Your task to perform on an android device: What's on my calendar tomorrow? Image 0: 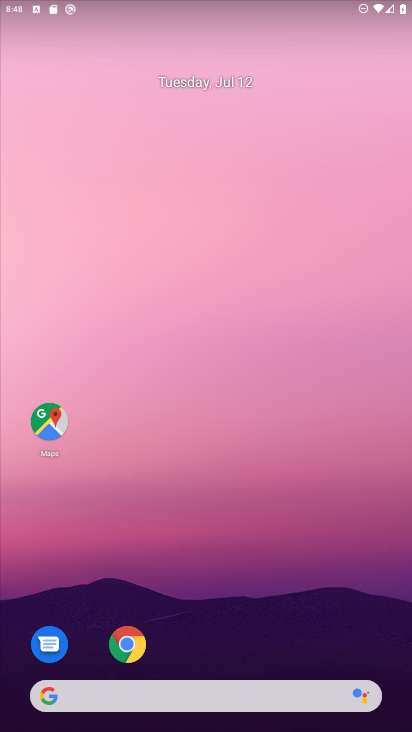
Step 0: drag from (328, 612) to (295, 251)
Your task to perform on an android device: What's on my calendar tomorrow? Image 1: 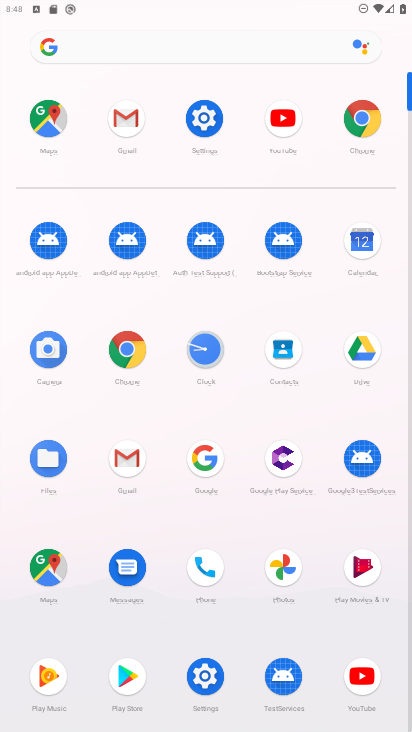
Step 1: click (364, 239)
Your task to perform on an android device: What's on my calendar tomorrow? Image 2: 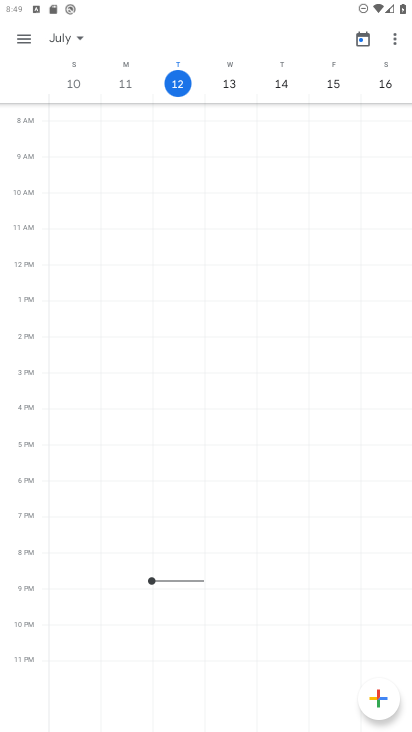
Step 2: click (77, 33)
Your task to perform on an android device: What's on my calendar tomorrow? Image 3: 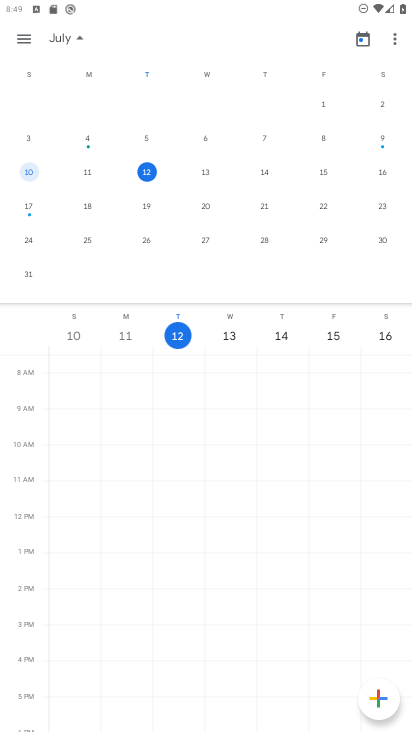
Step 3: click (28, 35)
Your task to perform on an android device: What's on my calendar tomorrow? Image 4: 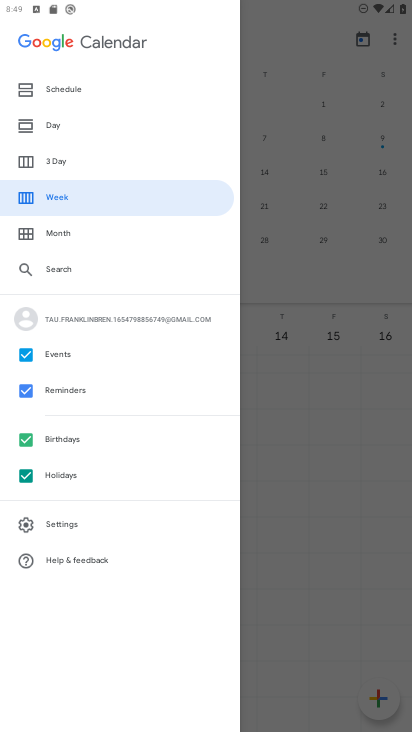
Step 4: click (56, 126)
Your task to perform on an android device: What's on my calendar tomorrow? Image 5: 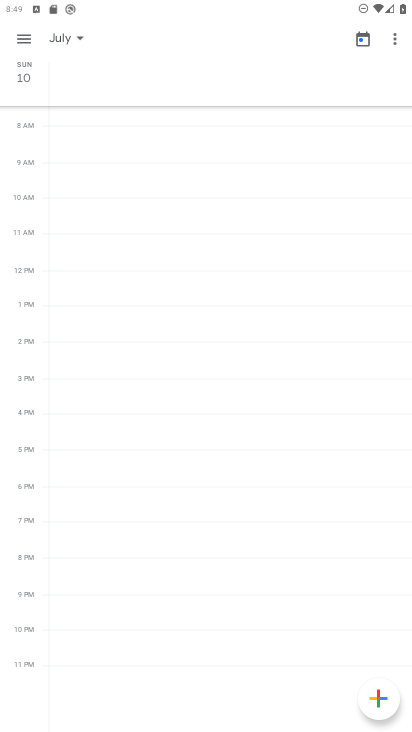
Step 5: click (74, 37)
Your task to perform on an android device: What's on my calendar tomorrow? Image 6: 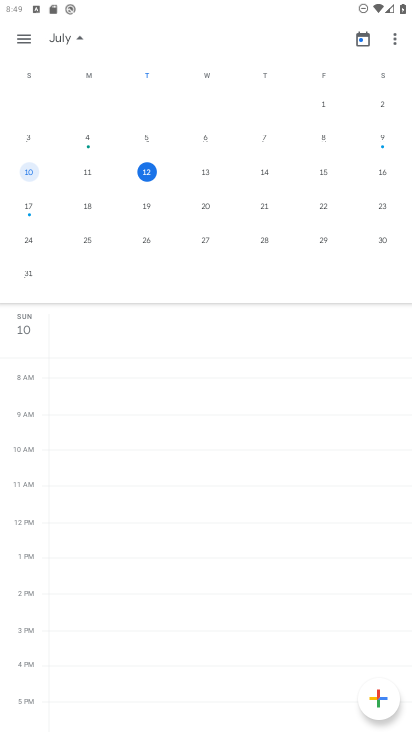
Step 6: click (206, 172)
Your task to perform on an android device: What's on my calendar tomorrow? Image 7: 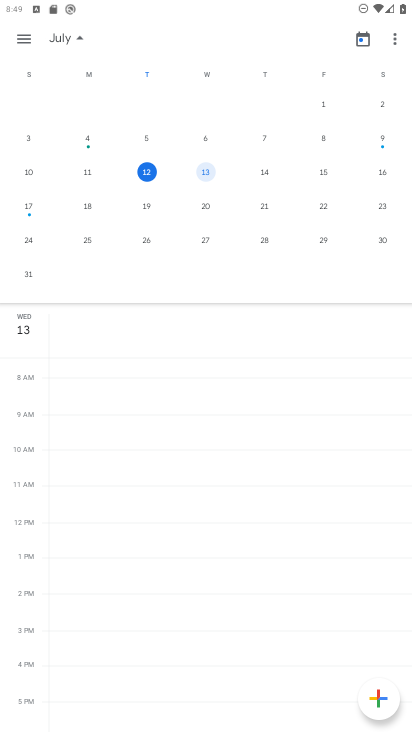
Step 7: drag from (206, 640) to (199, 591)
Your task to perform on an android device: What's on my calendar tomorrow? Image 8: 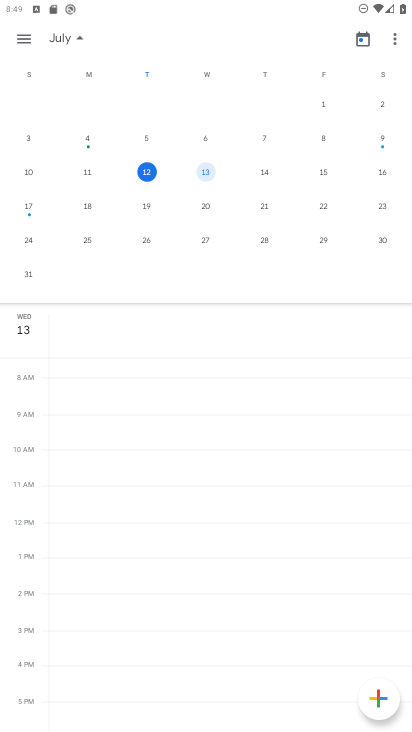
Step 8: click (204, 166)
Your task to perform on an android device: What's on my calendar tomorrow? Image 9: 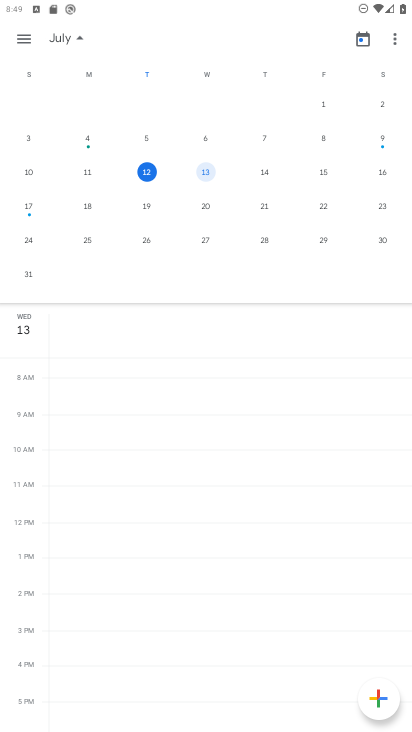
Step 9: click (204, 166)
Your task to perform on an android device: What's on my calendar tomorrow? Image 10: 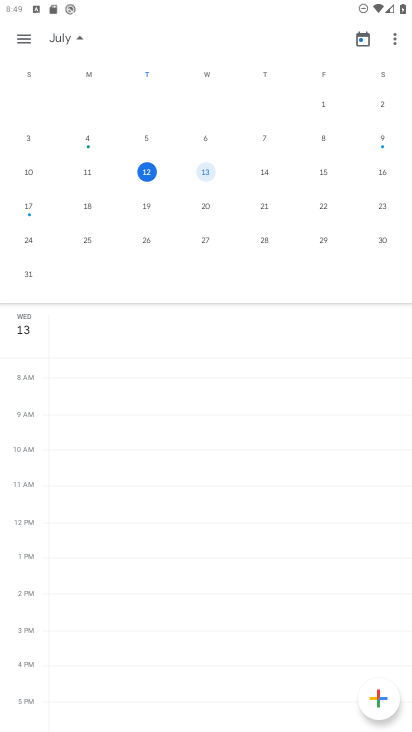
Step 10: click (204, 166)
Your task to perform on an android device: What's on my calendar tomorrow? Image 11: 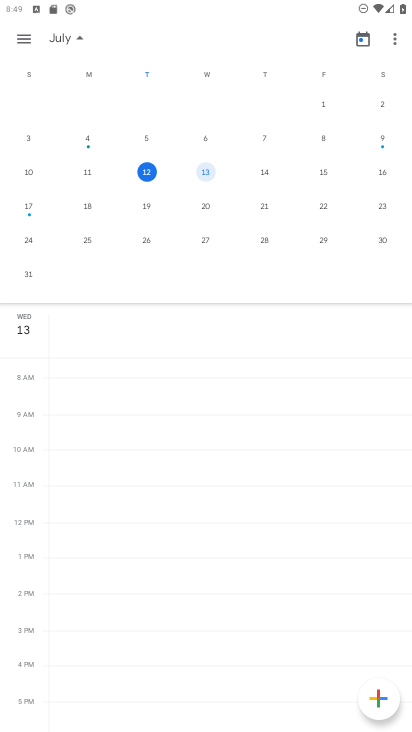
Step 11: task complete